Your task to perform on an android device: Go to Android settings Image 0: 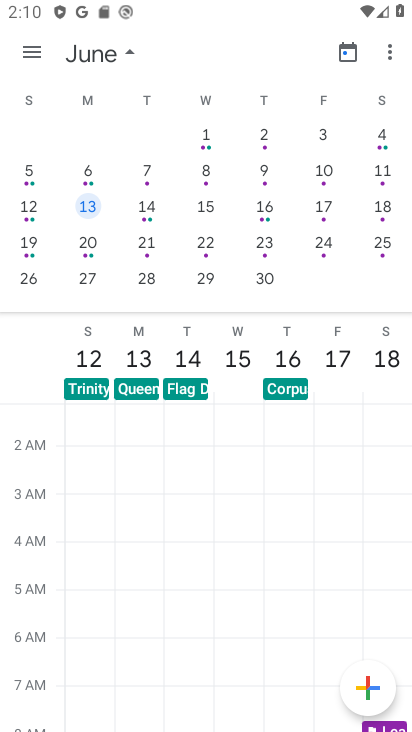
Step 0: press home button
Your task to perform on an android device: Go to Android settings Image 1: 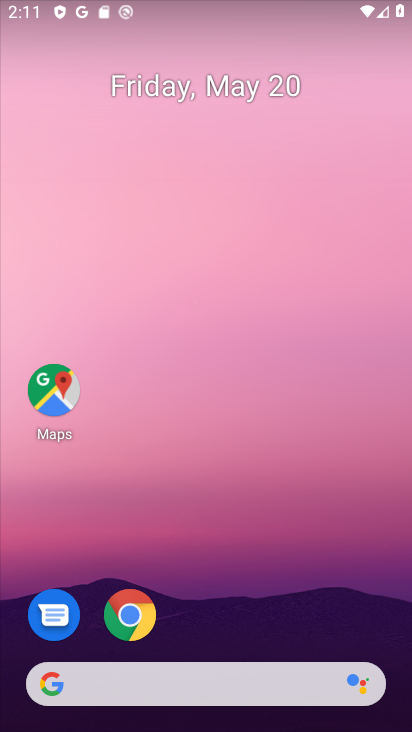
Step 1: drag from (255, 635) to (250, 149)
Your task to perform on an android device: Go to Android settings Image 2: 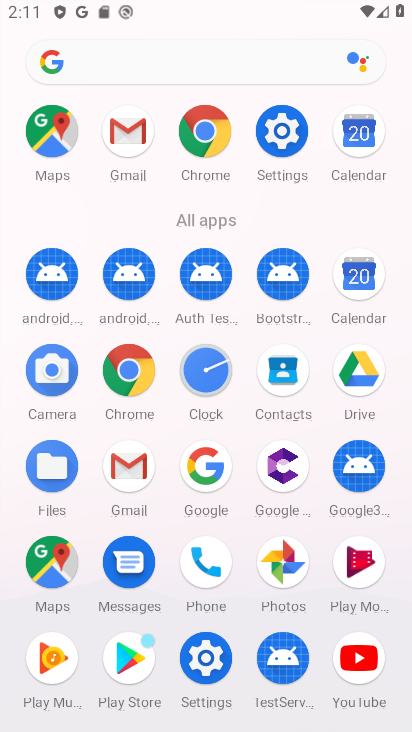
Step 2: click (277, 136)
Your task to perform on an android device: Go to Android settings Image 3: 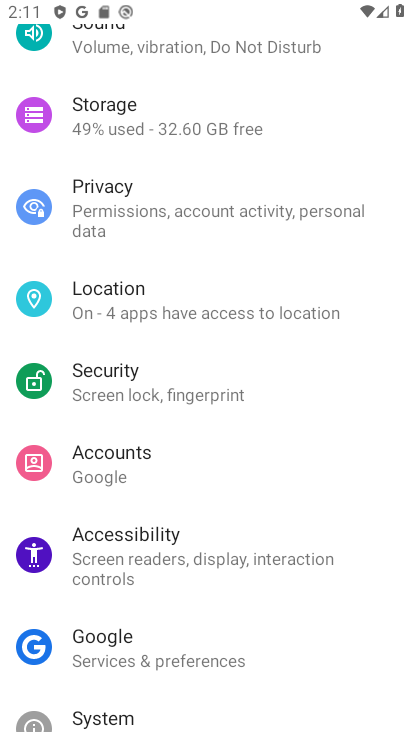
Step 3: task complete